Your task to perform on an android device: Go to settings Image 0: 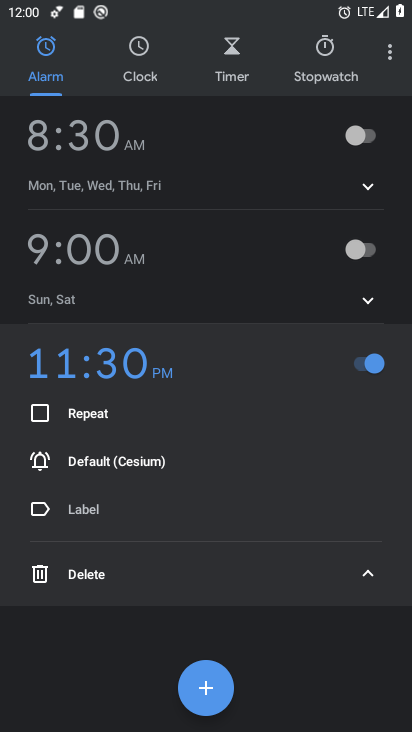
Step 0: press home button
Your task to perform on an android device: Go to settings Image 1: 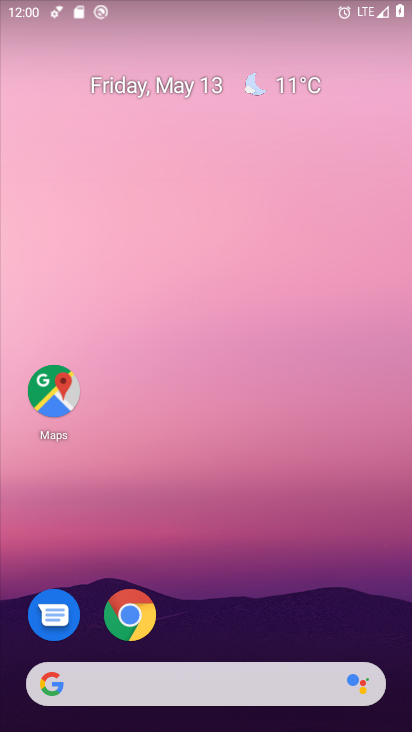
Step 1: drag from (154, 496) to (189, 51)
Your task to perform on an android device: Go to settings Image 2: 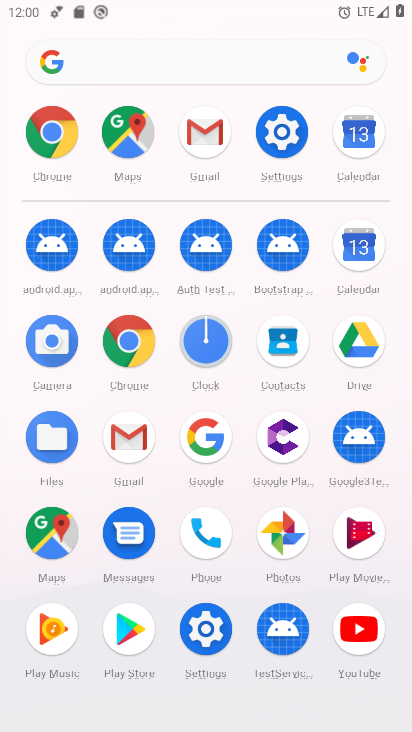
Step 2: click (281, 140)
Your task to perform on an android device: Go to settings Image 3: 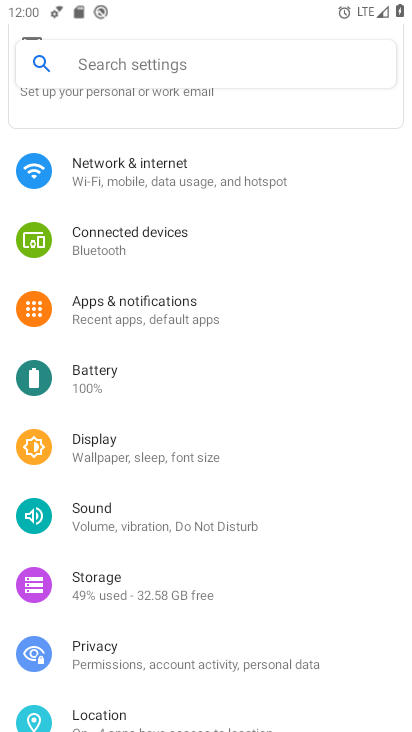
Step 3: task complete